Your task to perform on an android device: Do I have any events today? Image 0: 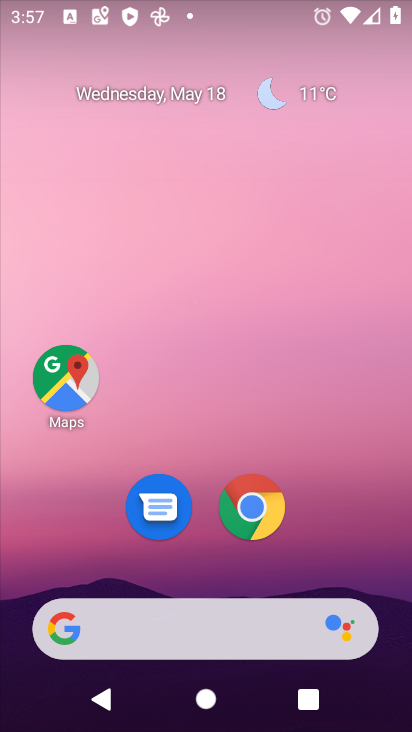
Step 0: drag from (391, 593) to (318, 194)
Your task to perform on an android device: Do I have any events today? Image 1: 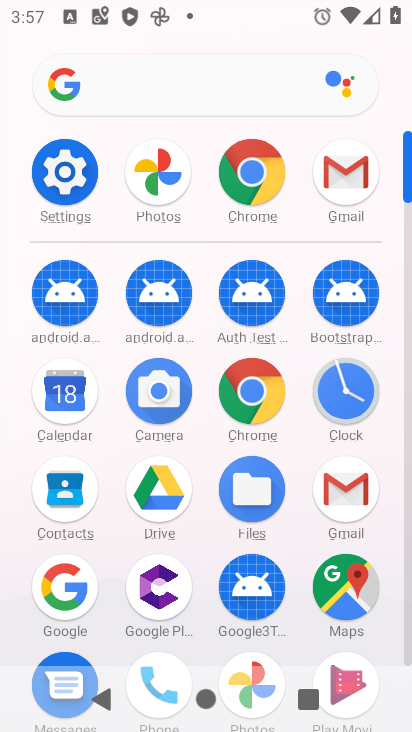
Step 1: click (62, 390)
Your task to perform on an android device: Do I have any events today? Image 2: 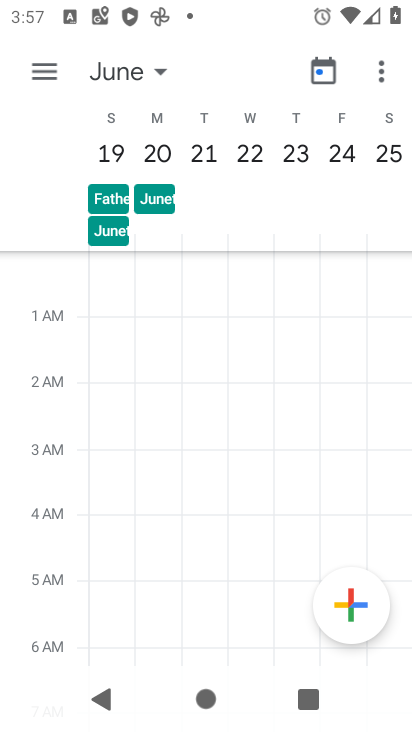
Step 2: click (45, 70)
Your task to perform on an android device: Do I have any events today? Image 3: 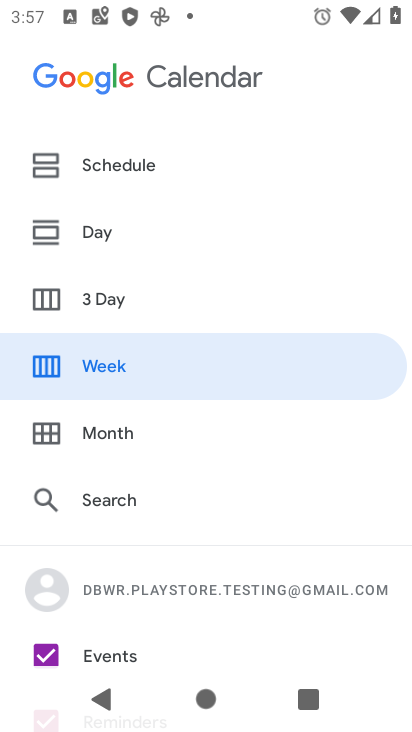
Step 3: click (99, 230)
Your task to perform on an android device: Do I have any events today? Image 4: 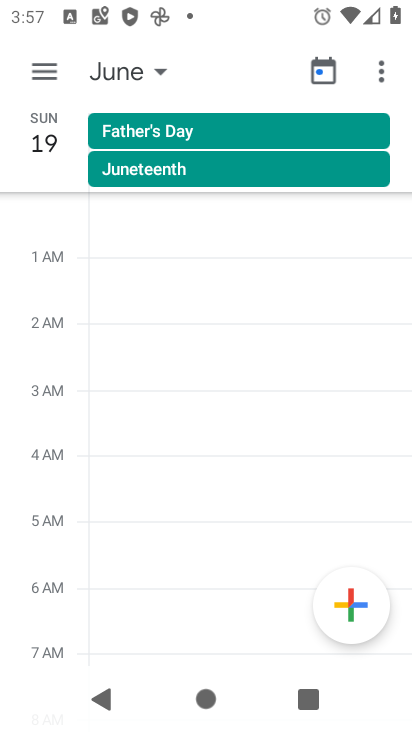
Step 4: click (149, 75)
Your task to perform on an android device: Do I have any events today? Image 5: 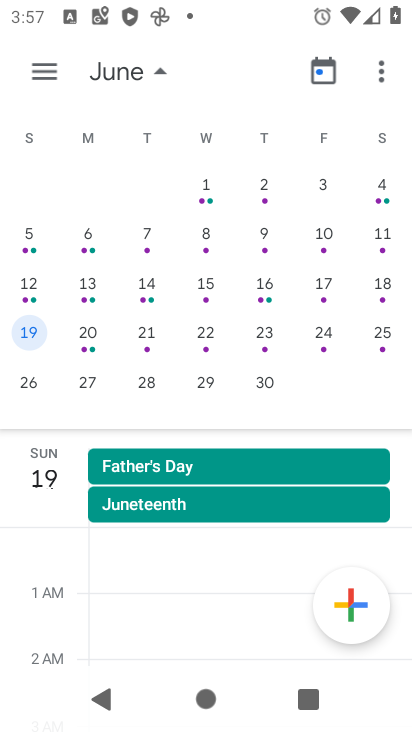
Step 5: drag from (108, 287) to (382, 301)
Your task to perform on an android device: Do I have any events today? Image 6: 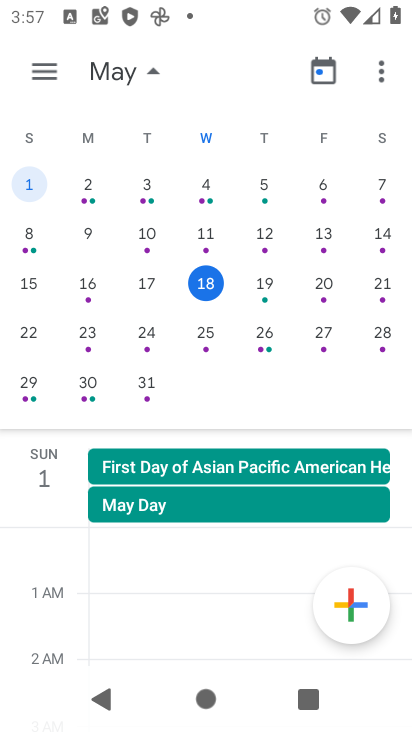
Step 6: click (200, 281)
Your task to perform on an android device: Do I have any events today? Image 7: 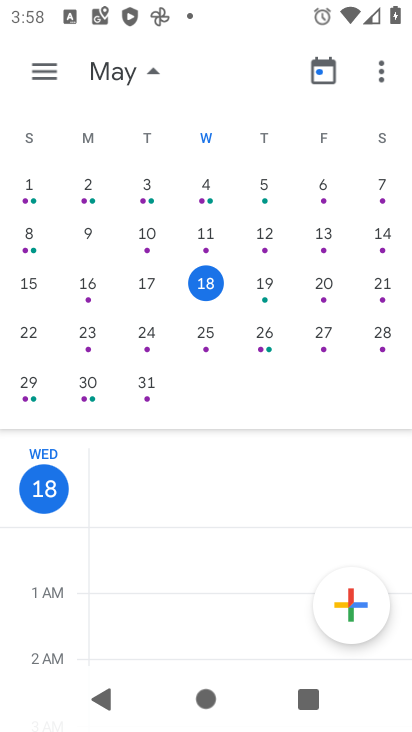
Step 7: task complete